Your task to perform on an android device: check storage Image 0: 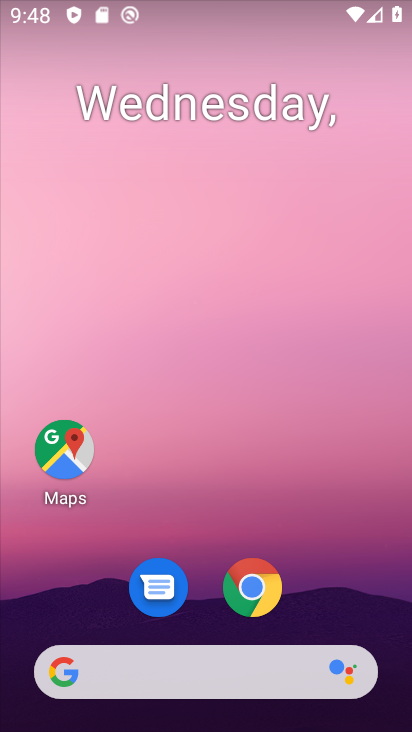
Step 0: drag from (379, 593) to (377, 305)
Your task to perform on an android device: check storage Image 1: 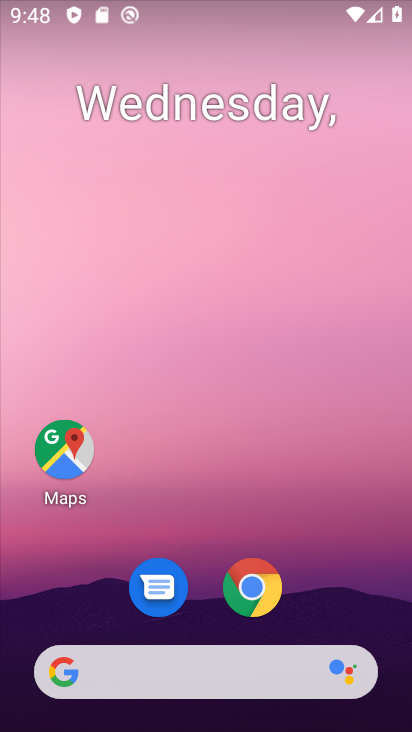
Step 1: drag from (373, 593) to (359, 93)
Your task to perform on an android device: check storage Image 2: 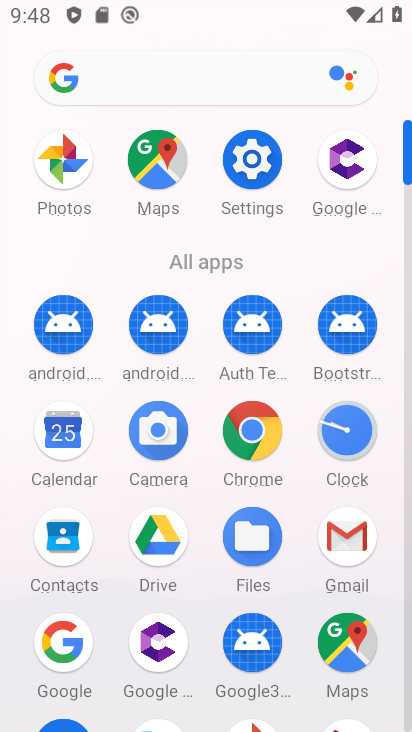
Step 2: click (259, 169)
Your task to perform on an android device: check storage Image 3: 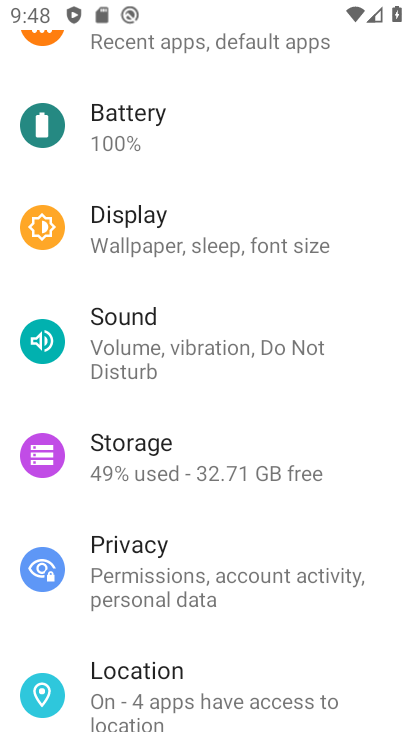
Step 3: click (259, 125)
Your task to perform on an android device: check storage Image 4: 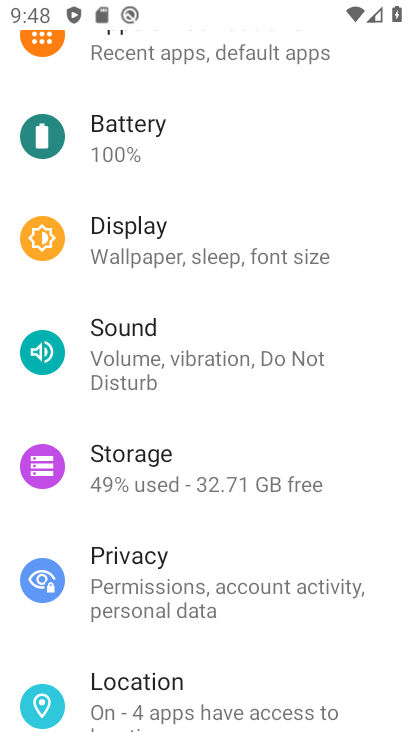
Step 4: drag from (324, 660) to (294, 434)
Your task to perform on an android device: check storage Image 5: 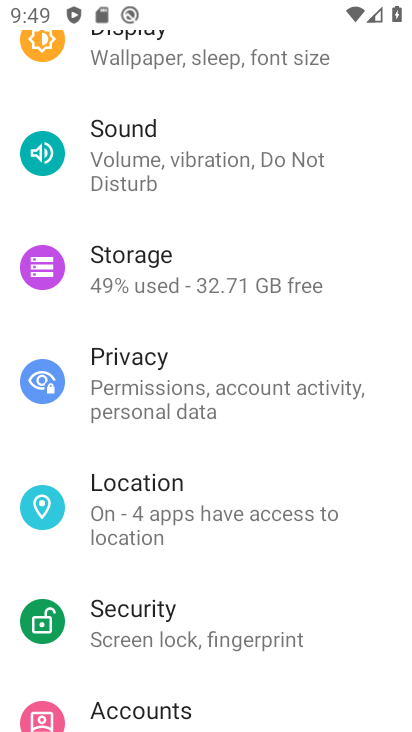
Step 5: click (285, 275)
Your task to perform on an android device: check storage Image 6: 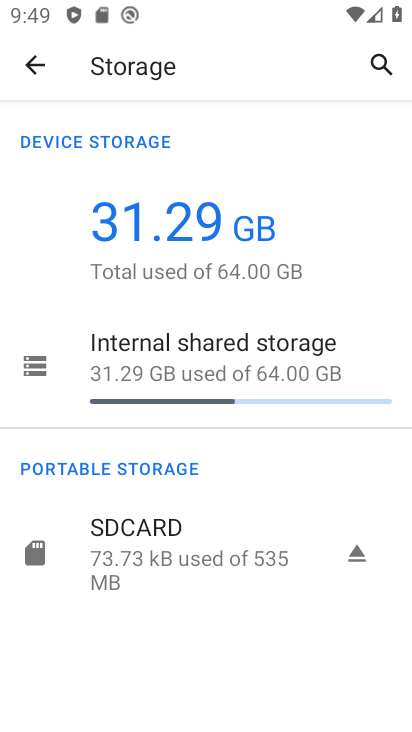
Step 6: task complete